Your task to perform on an android device: turn off sleep mode Image 0: 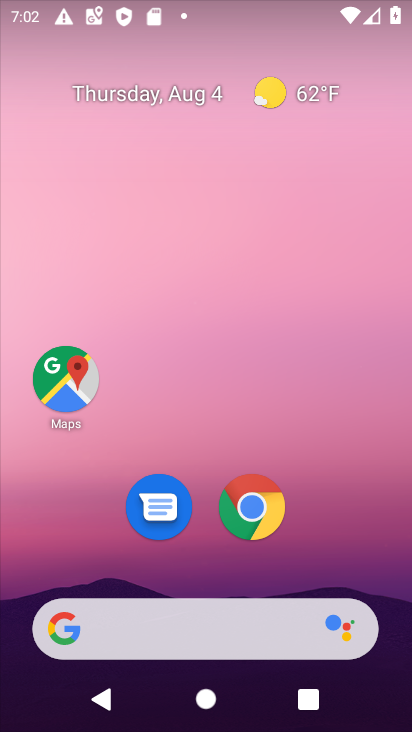
Step 0: drag from (395, 629) to (216, 53)
Your task to perform on an android device: turn off sleep mode Image 1: 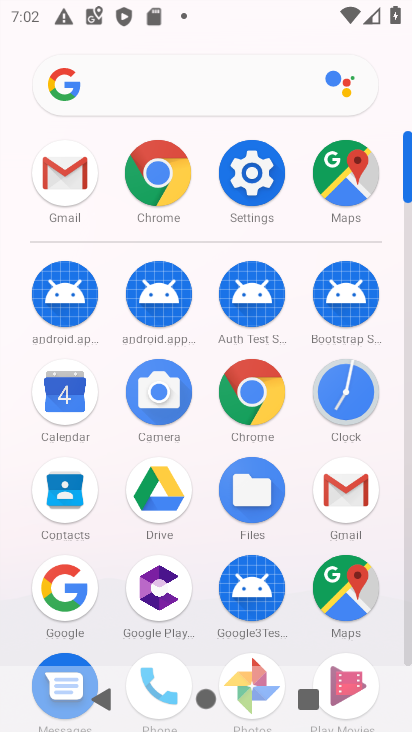
Step 1: click (253, 162)
Your task to perform on an android device: turn off sleep mode Image 2: 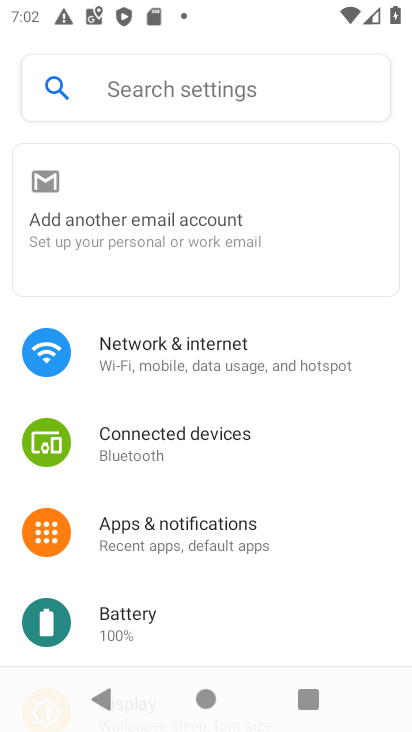
Step 2: task complete